Your task to perform on an android device: delete browsing data in the chrome app Image 0: 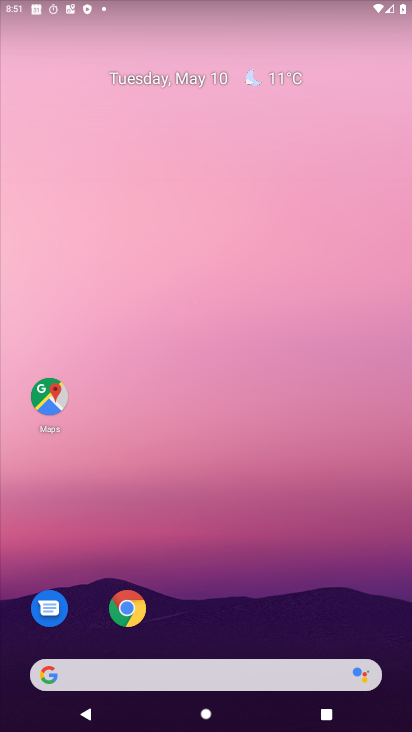
Step 0: click (113, 590)
Your task to perform on an android device: delete browsing data in the chrome app Image 1: 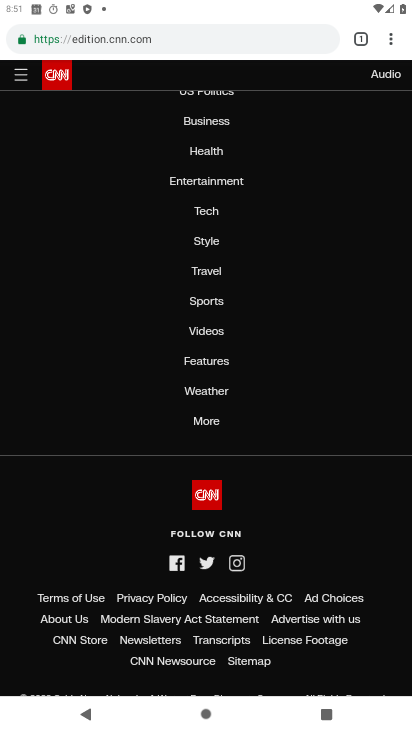
Step 1: drag from (398, 38) to (253, 219)
Your task to perform on an android device: delete browsing data in the chrome app Image 2: 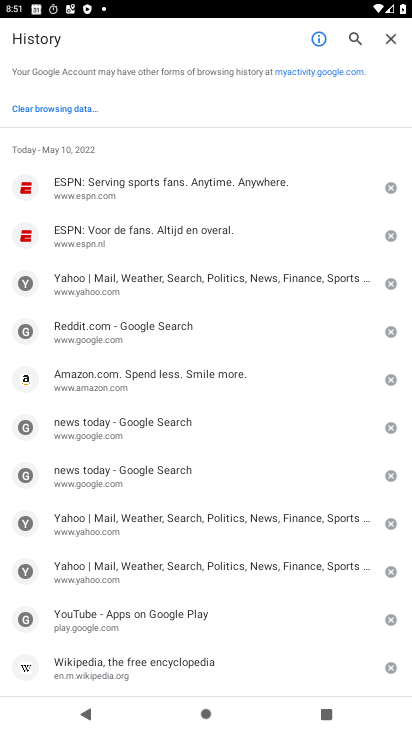
Step 2: click (38, 106)
Your task to perform on an android device: delete browsing data in the chrome app Image 3: 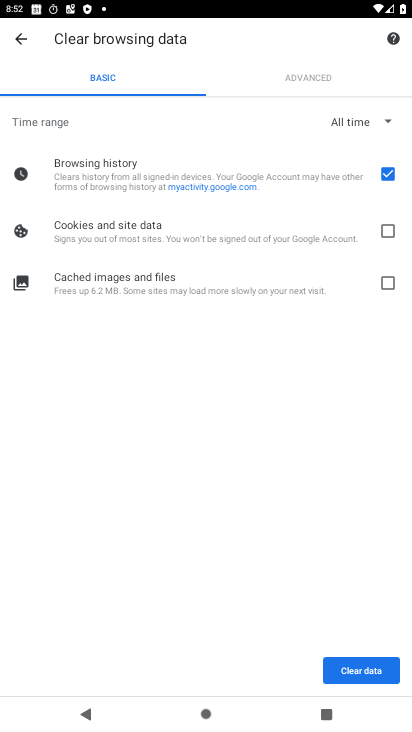
Step 3: task complete